Your task to perform on an android device: toggle translation in the chrome app Image 0: 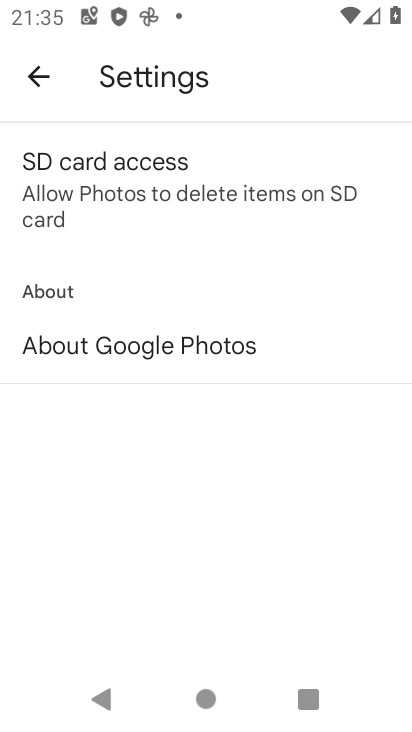
Step 0: press home button
Your task to perform on an android device: toggle translation in the chrome app Image 1: 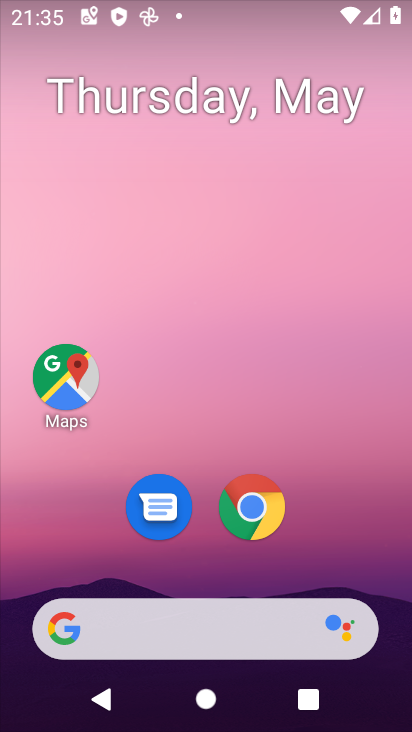
Step 1: drag from (264, 653) to (162, 114)
Your task to perform on an android device: toggle translation in the chrome app Image 2: 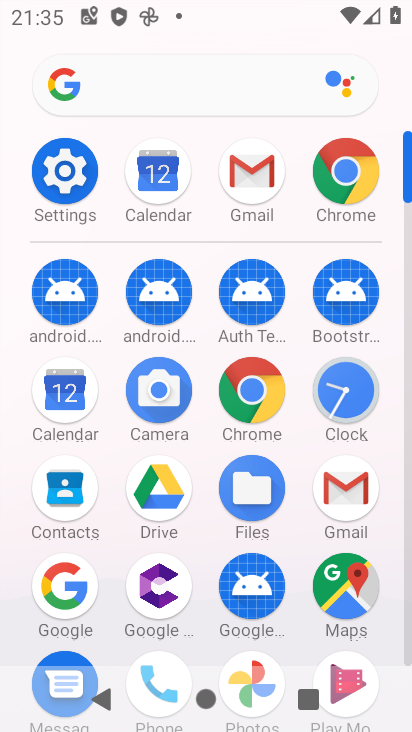
Step 2: click (352, 190)
Your task to perform on an android device: toggle translation in the chrome app Image 3: 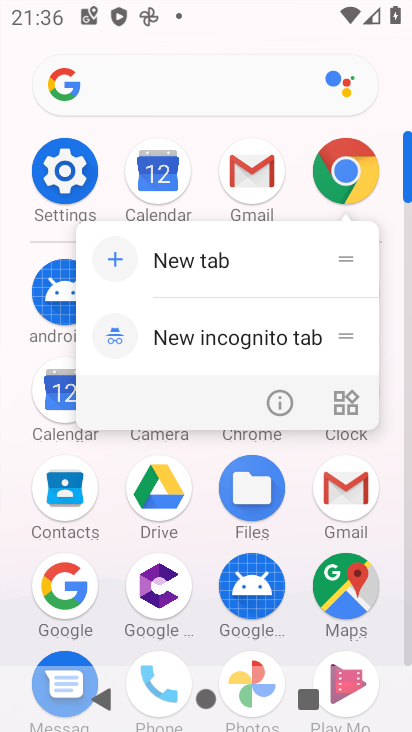
Step 3: click (323, 184)
Your task to perform on an android device: toggle translation in the chrome app Image 4: 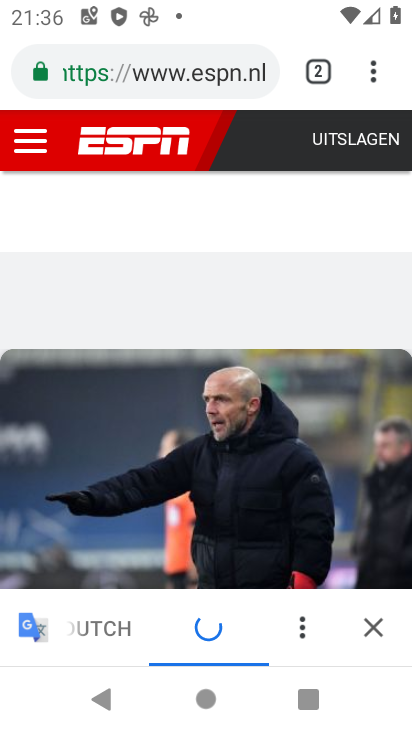
Step 4: click (376, 81)
Your task to perform on an android device: toggle translation in the chrome app Image 5: 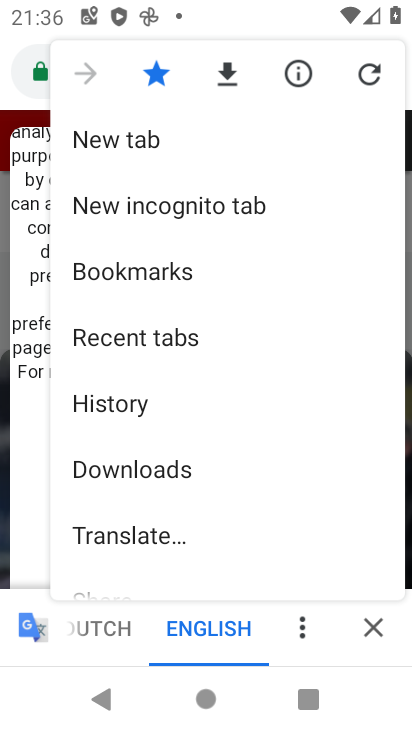
Step 5: click (167, 532)
Your task to perform on an android device: toggle translation in the chrome app Image 6: 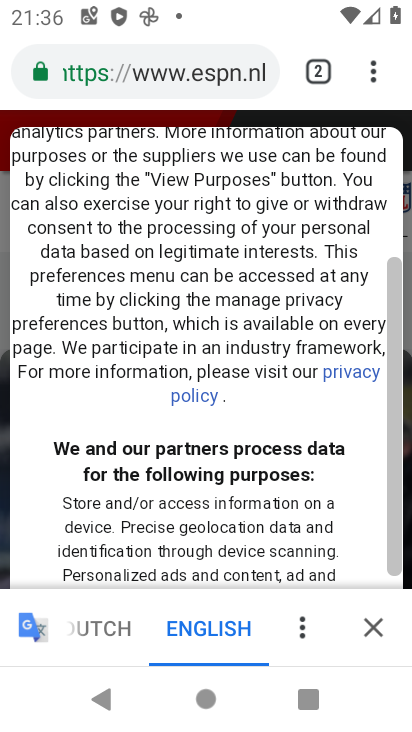
Step 6: click (372, 70)
Your task to perform on an android device: toggle translation in the chrome app Image 7: 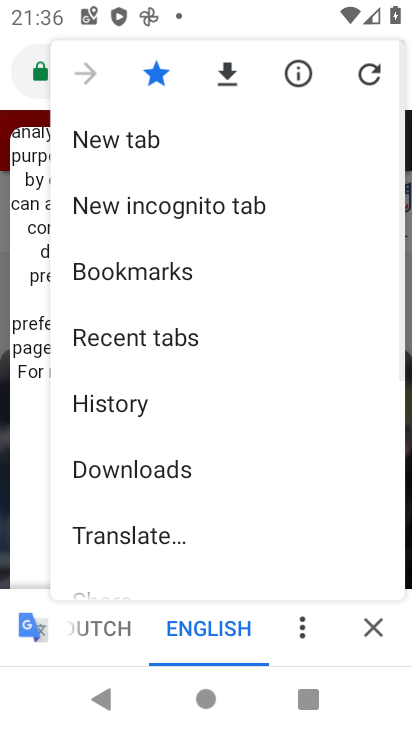
Step 7: click (152, 529)
Your task to perform on an android device: toggle translation in the chrome app Image 8: 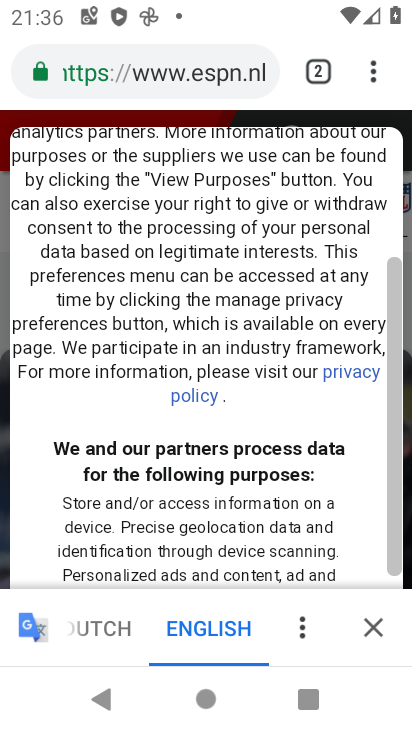
Step 8: task complete